Your task to perform on an android device: Open Google Maps Image 0: 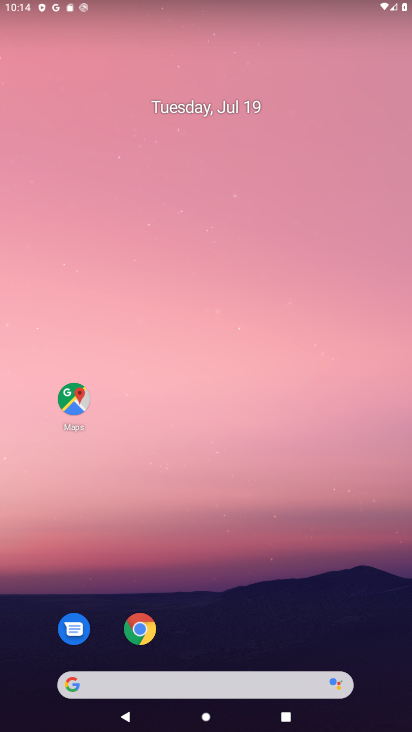
Step 0: click (69, 399)
Your task to perform on an android device: Open Google Maps Image 1: 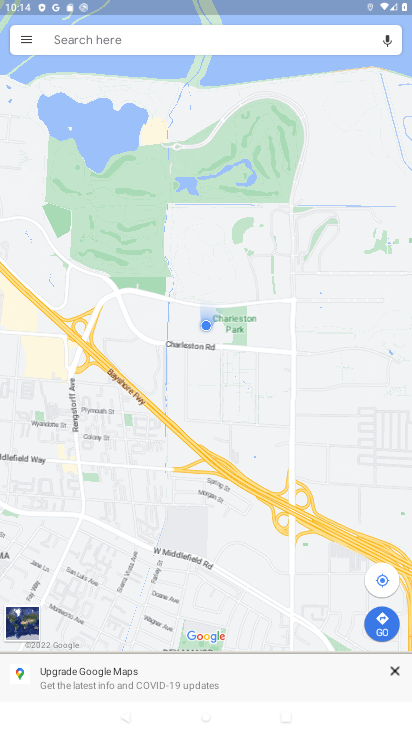
Step 1: click (397, 666)
Your task to perform on an android device: Open Google Maps Image 2: 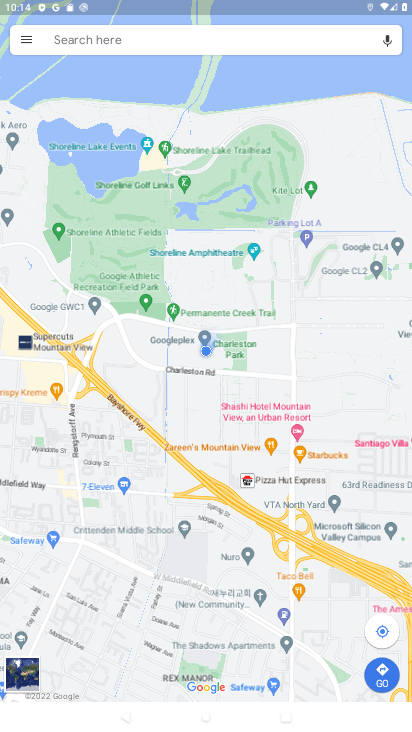
Step 2: task complete